Your task to perform on an android device: delete browsing data in the chrome app Image 0: 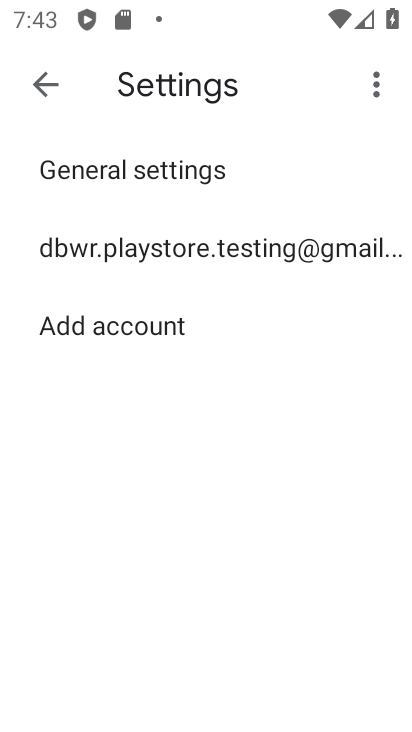
Step 0: press home button
Your task to perform on an android device: delete browsing data in the chrome app Image 1: 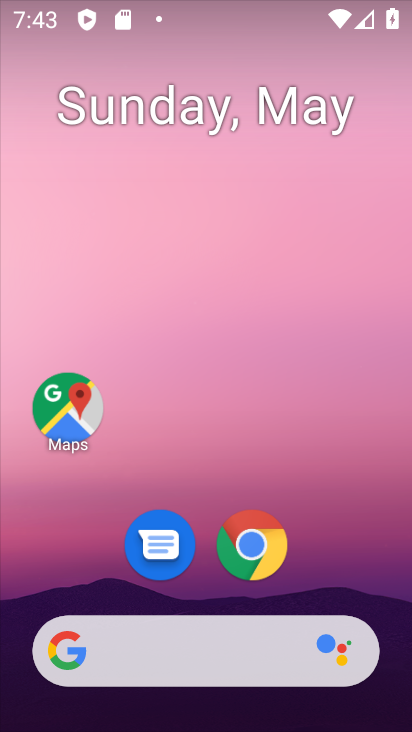
Step 1: drag from (370, 580) to (403, 87)
Your task to perform on an android device: delete browsing data in the chrome app Image 2: 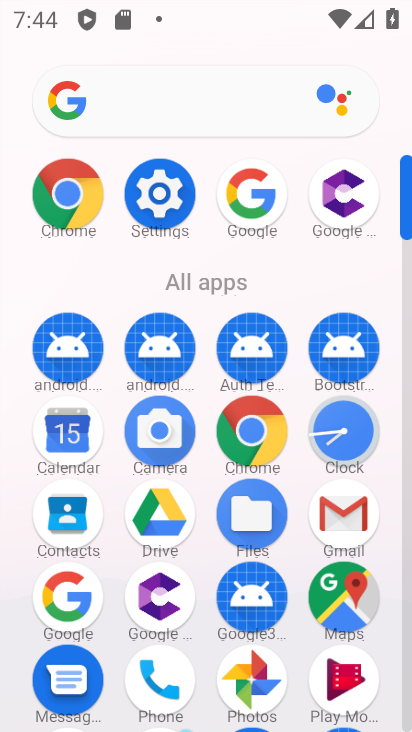
Step 2: click (268, 448)
Your task to perform on an android device: delete browsing data in the chrome app Image 3: 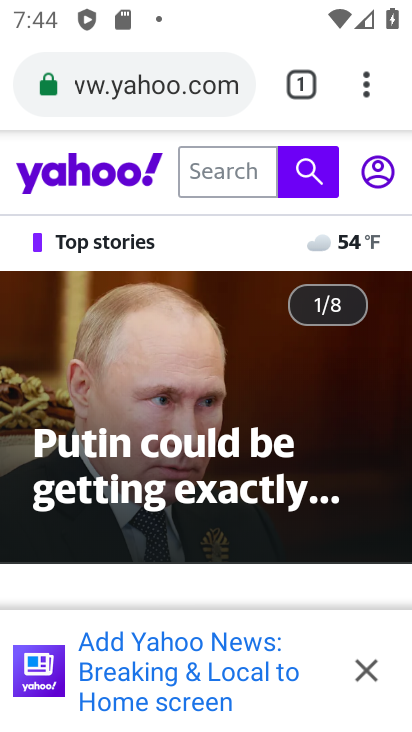
Step 3: click (370, 93)
Your task to perform on an android device: delete browsing data in the chrome app Image 4: 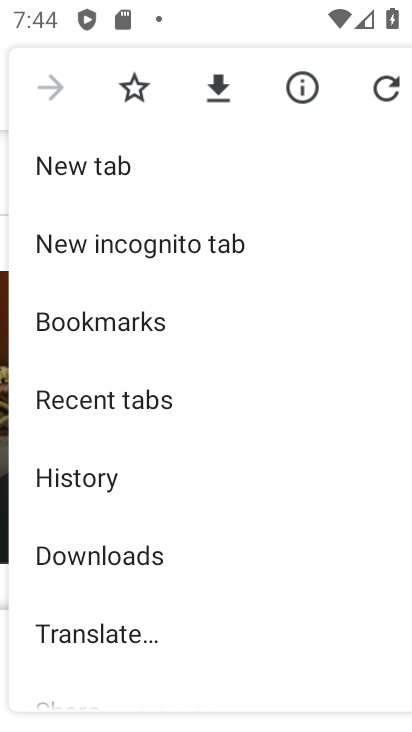
Step 4: drag from (303, 585) to (322, 435)
Your task to perform on an android device: delete browsing data in the chrome app Image 5: 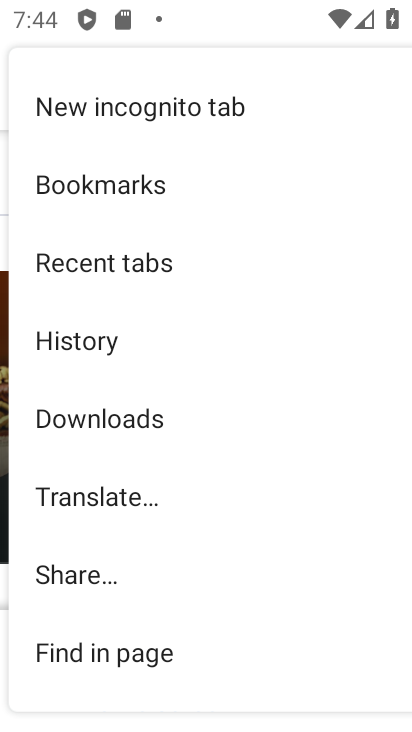
Step 5: drag from (332, 617) to (317, 471)
Your task to perform on an android device: delete browsing data in the chrome app Image 6: 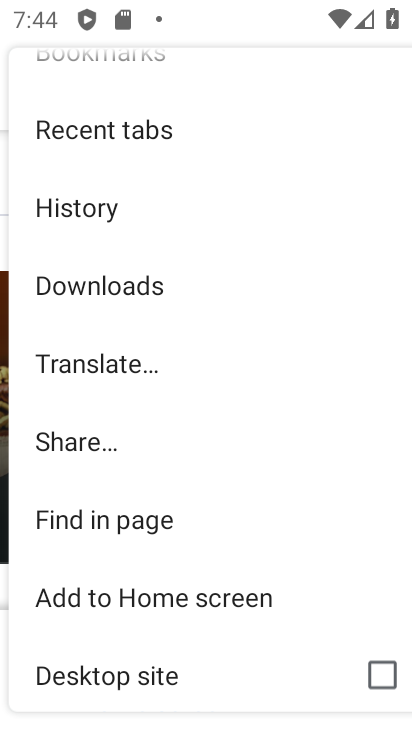
Step 6: drag from (311, 664) to (342, 390)
Your task to perform on an android device: delete browsing data in the chrome app Image 7: 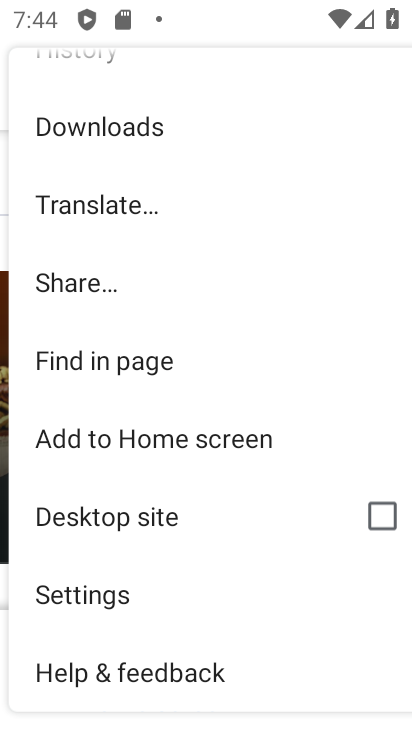
Step 7: click (117, 610)
Your task to perform on an android device: delete browsing data in the chrome app Image 8: 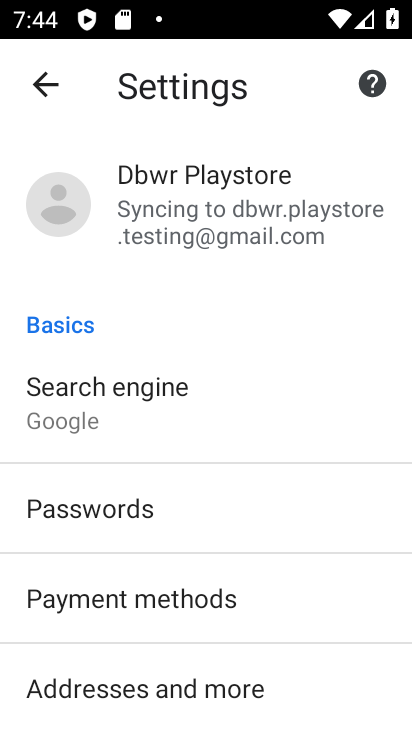
Step 8: drag from (336, 653) to (358, 467)
Your task to perform on an android device: delete browsing data in the chrome app Image 9: 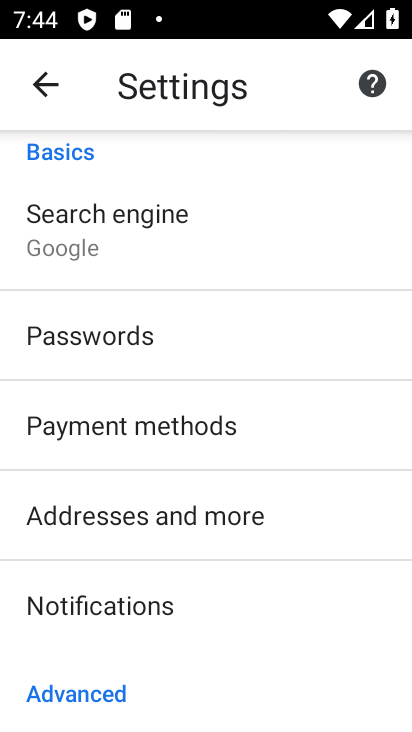
Step 9: drag from (342, 676) to (346, 456)
Your task to perform on an android device: delete browsing data in the chrome app Image 10: 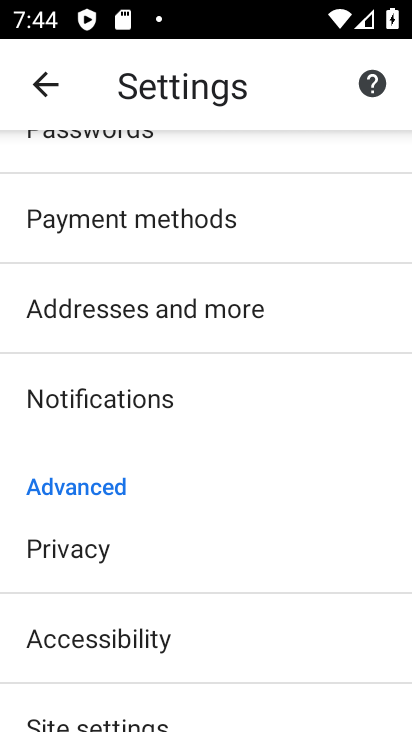
Step 10: drag from (325, 658) to (316, 465)
Your task to perform on an android device: delete browsing data in the chrome app Image 11: 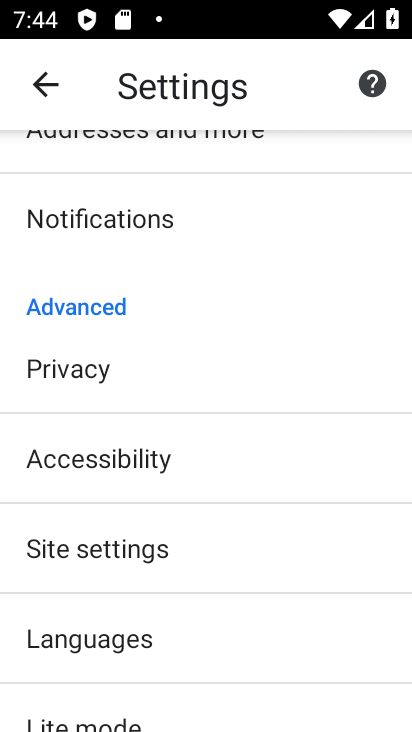
Step 11: drag from (301, 634) to (292, 456)
Your task to perform on an android device: delete browsing data in the chrome app Image 12: 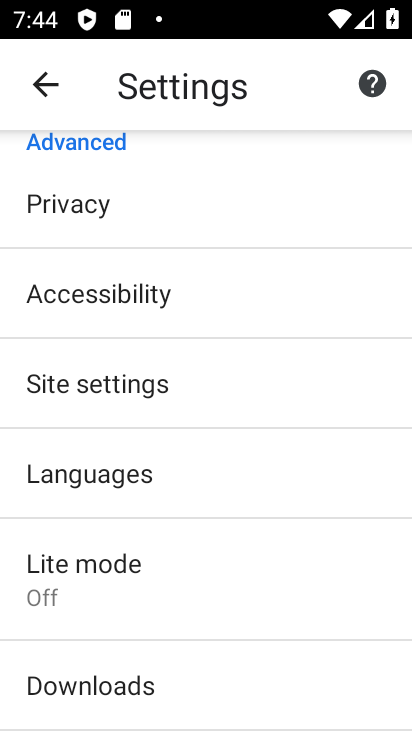
Step 12: drag from (316, 271) to (305, 503)
Your task to perform on an android device: delete browsing data in the chrome app Image 13: 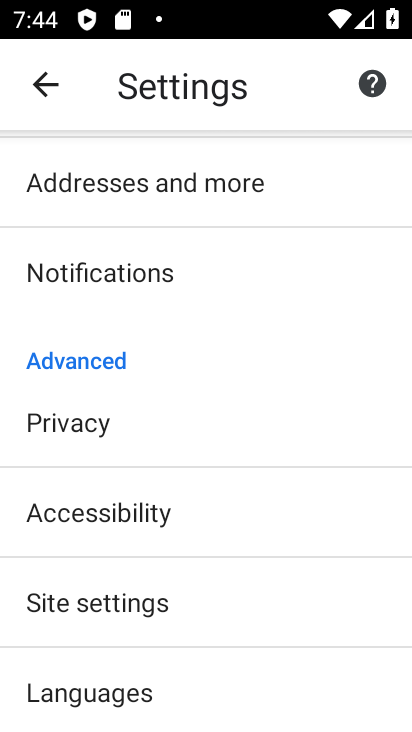
Step 13: click (124, 442)
Your task to perform on an android device: delete browsing data in the chrome app Image 14: 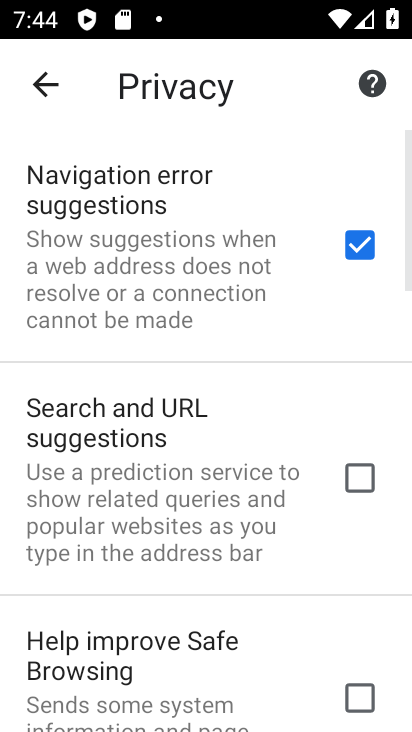
Step 14: drag from (317, 614) to (313, 382)
Your task to perform on an android device: delete browsing data in the chrome app Image 15: 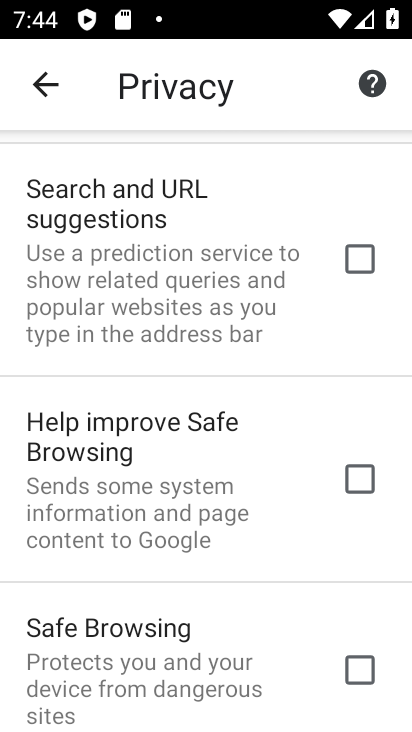
Step 15: drag from (299, 643) to (297, 396)
Your task to perform on an android device: delete browsing data in the chrome app Image 16: 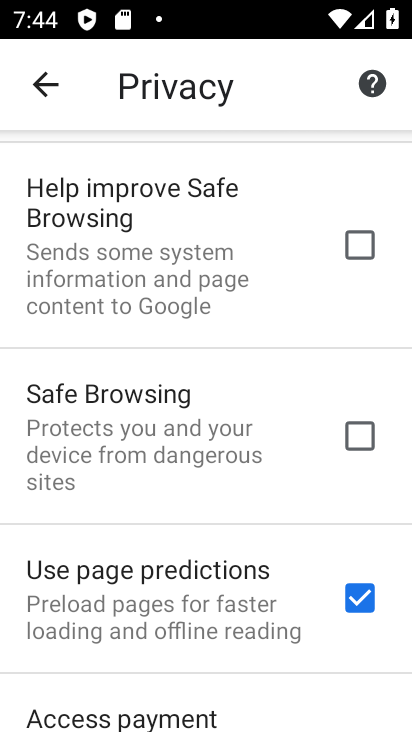
Step 16: drag from (299, 683) to (288, 433)
Your task to perform on an android device: delete browsing data in the chrome app Image 17: 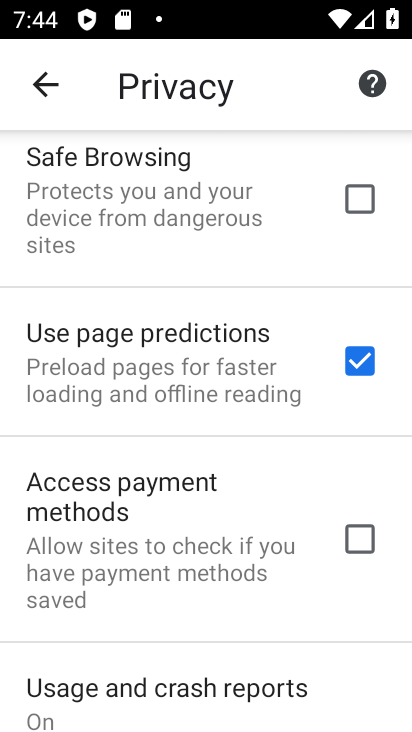
Step 17: drag from (298, 624) to (291, 414)
Your task to perform on an android device: delete browsing data in the chrome app Image 18: 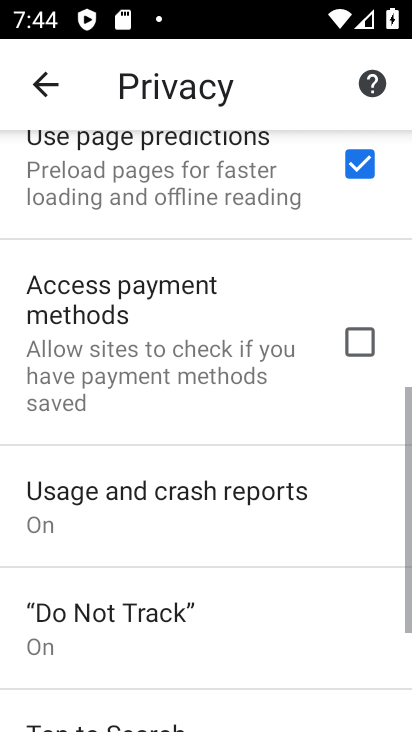
Step 18: drag from (307, 536) to (327, 400)
Your task to perform on an android device: delete browsing data in the chrome app Image 19: 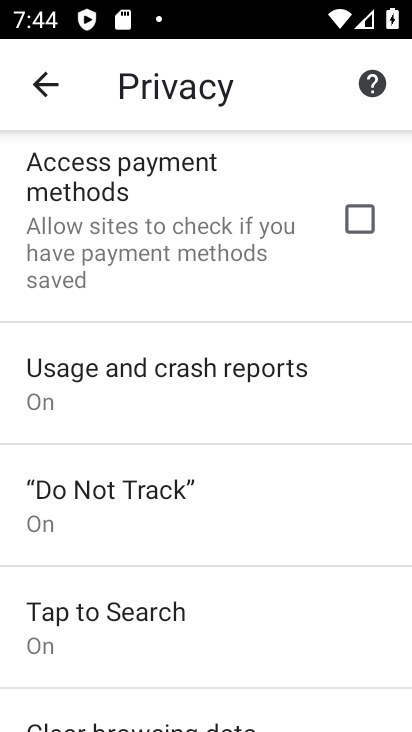
Step 19: drag from (298, 631) to (288, 426)
Your task to perform on an android device: delete browsing data in the chrome app Image 20: 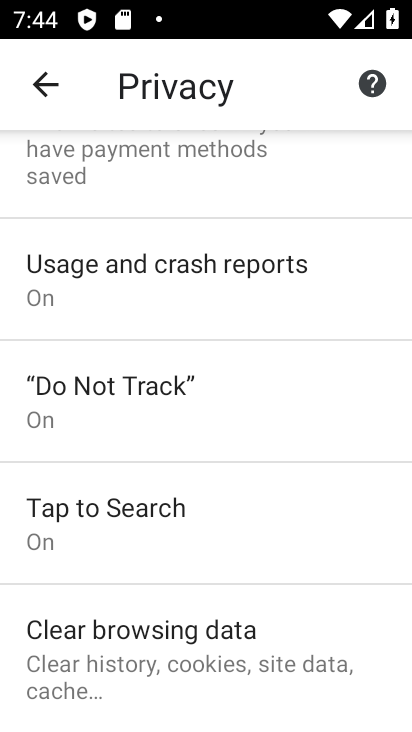
Step 20: click (276, 666)
Your task to perform on an android device: delete browsing data in the chrome app Image 21: 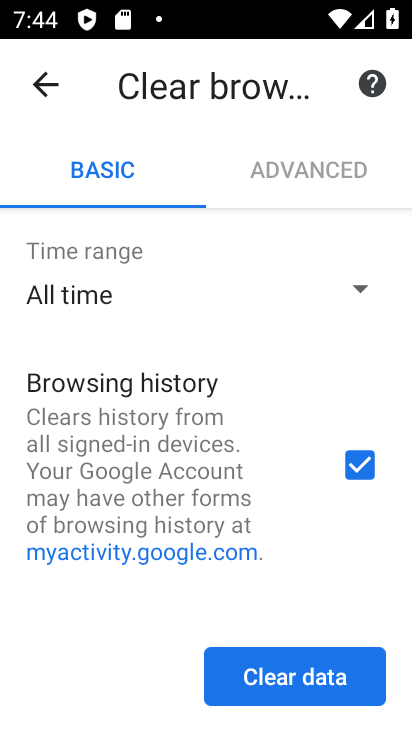
Step 21: click (279, 681)
Your task to perform on an android device: delete browsing data in the chrome app Image 22: 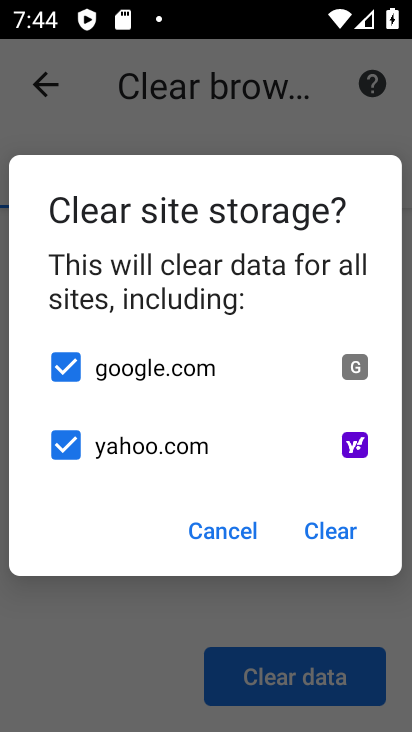
Step 22: click (324, 513)
Your task to perform on an android device: delete browsing data in the chrome app Image 23: 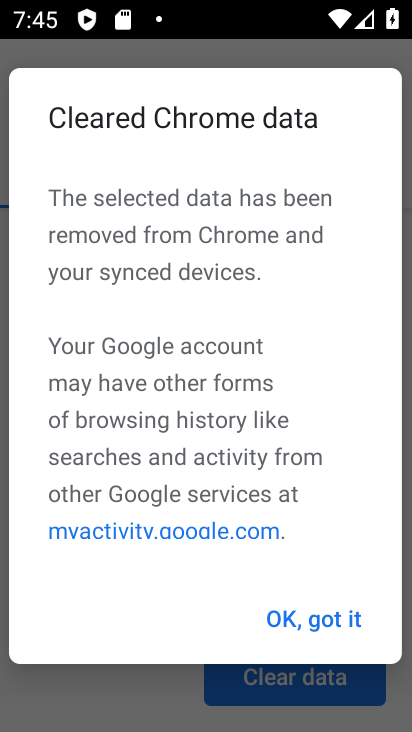
Step 23: click (317, 617)
Your task to perform on an android device: delete browsing data in the chrome app Image 24: 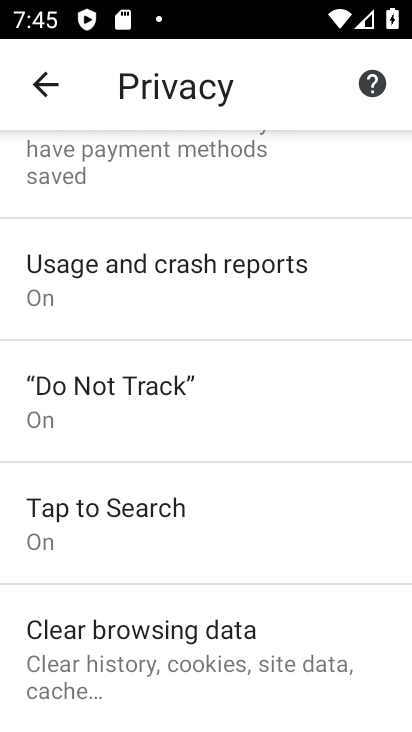
Step 24: task complete